Your task to perform on an android device: turn on bluetooth scan Image 0: 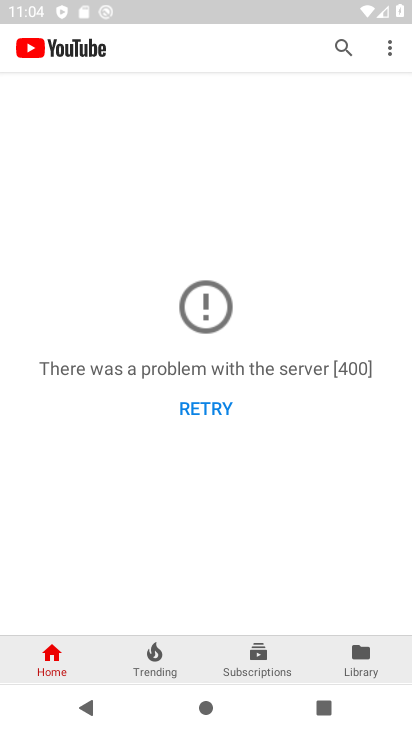
Step 0: press home button
Your task to perform on an android device: turn on bluetooth scan Image 1: 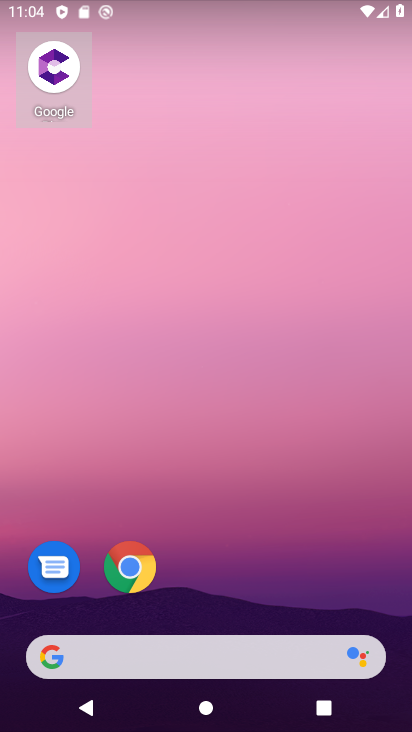
Step 1: drag from (323, 348) to (322, 236)
Your task to perform on an android device: turn on bluetooth scan Image 2: 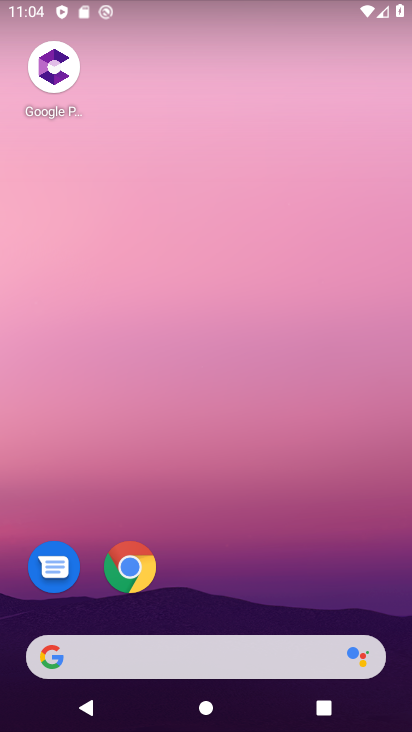
Step 2: drag from (332, 620) to (279, 57)
Your task to perform on an android device: turn on bluetooth scan Image 3: 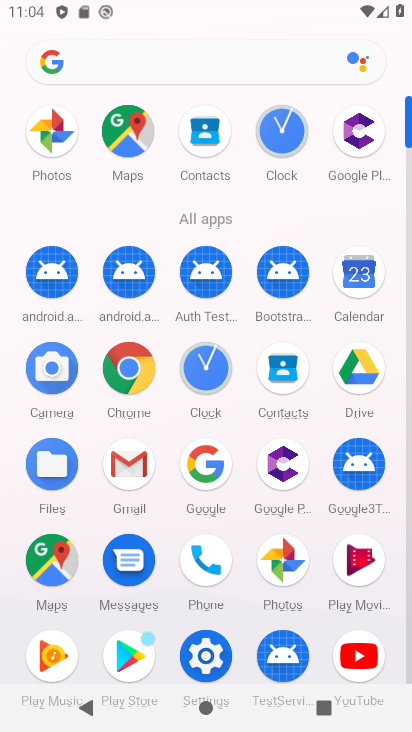
Step 3: click (197, 659)
Your task to perform on an android device: turn on bluetooth scan Image 4: 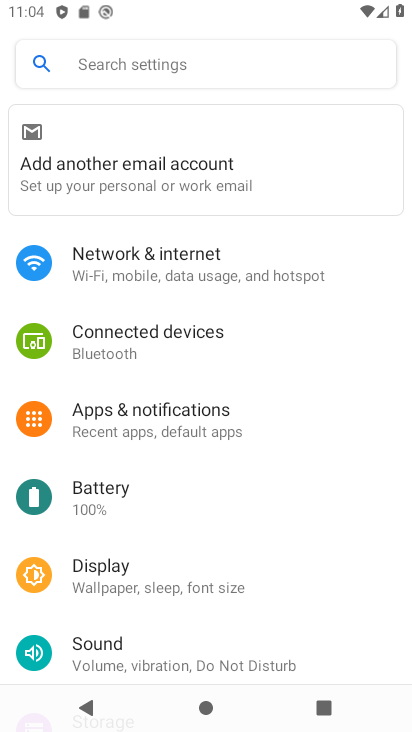
Step 4: drag from (279, 630) to (311, 306)
Your task to perform on an android device: turn on bluetooth scan Image 5: 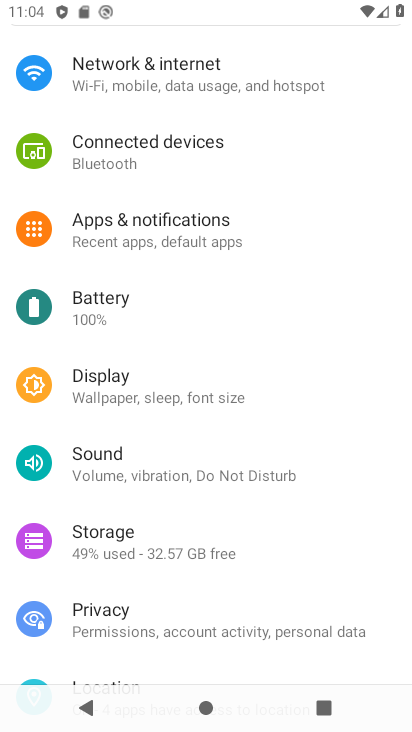
Step 5: drag from (282, 676) to (349, 264)
Your task to perform on an android device: turn on bluetooth scan Image 6: 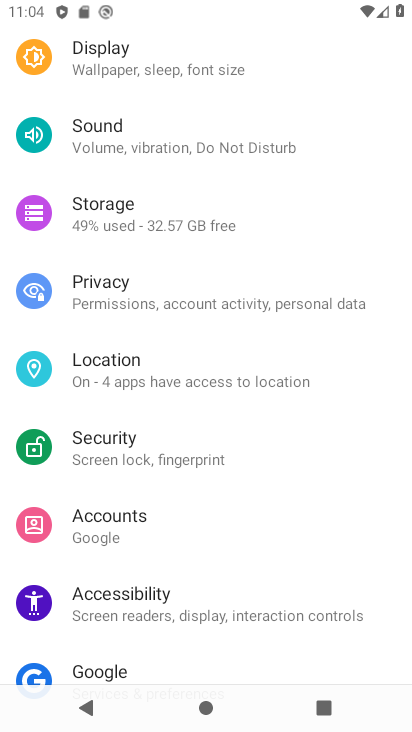
Step 6: drag from (276, 624) to (357, 90)
Your task to perform on an android device: turn on bluetooth scan Image 7: 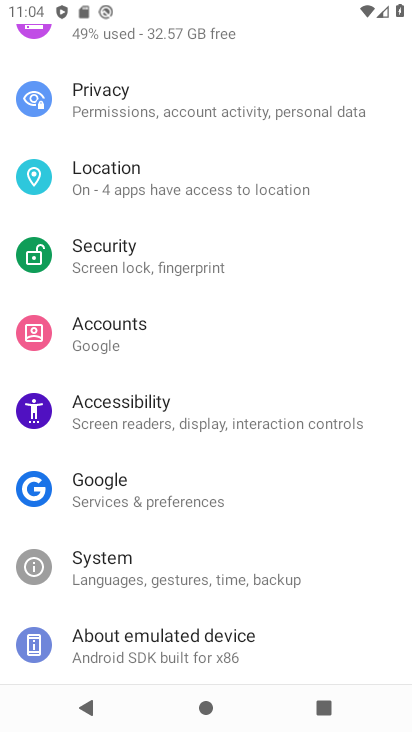
Step 7: click (251, 637)
Your task to perform on an android device: turn on bluetooth scan Image 8: 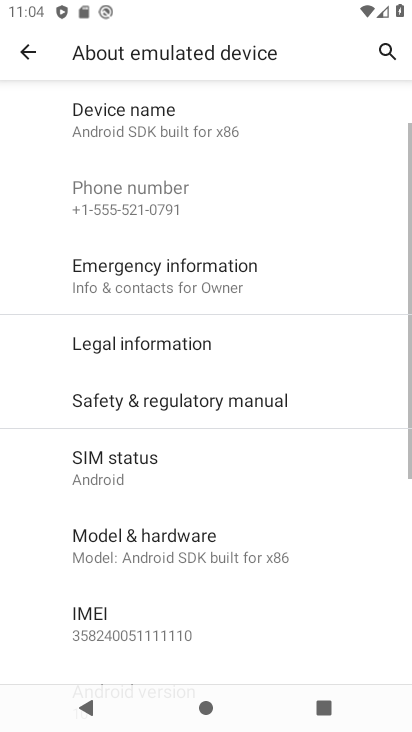
Step 8: click (11, 55)
Your task to perform on an android device: turn on bluetooth scan Image 9: 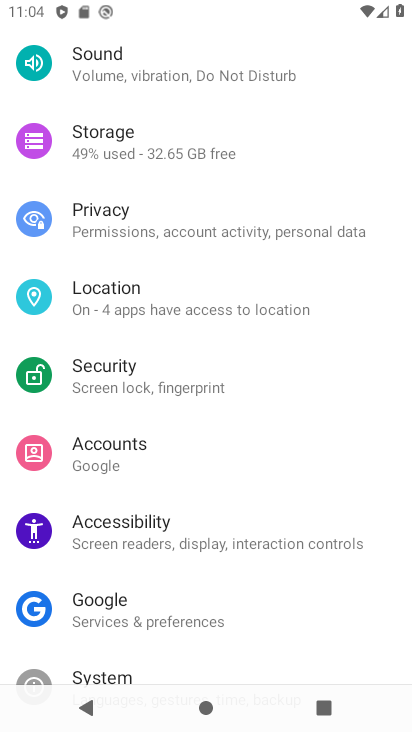
Step 9: drag from (202, 239) to (230, 538)
Your task to perform on an android device: turn on bluetooth scan Image 10: 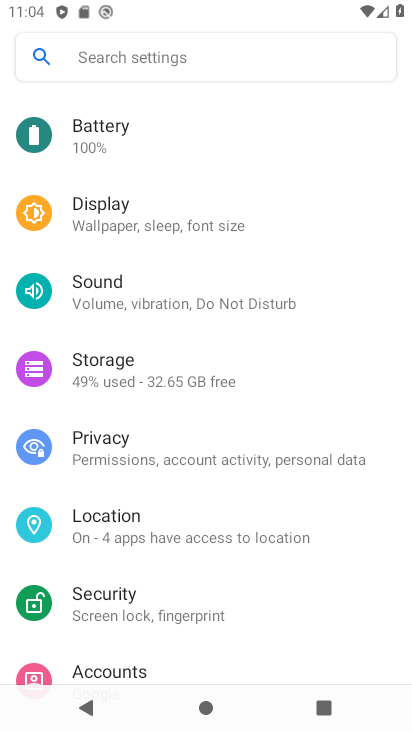
Step 10: click (168, 539)
Your task to perform on an android device: turn on bluetooth scan Image 11: 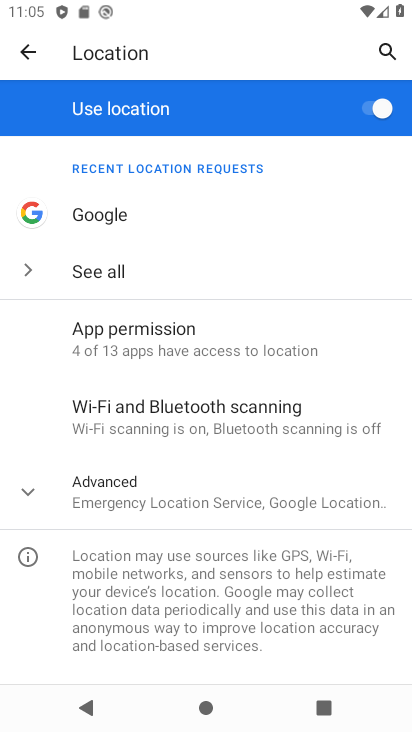
Step 11: click (151, 419)
Your task to perform on an android device: turn on bluetooth scan Image 12: 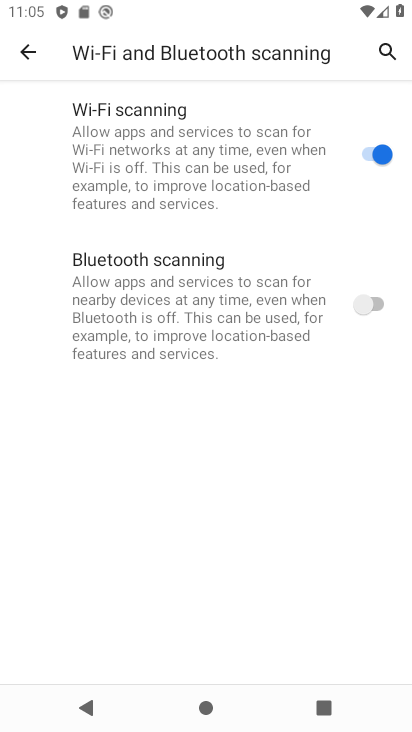
Step 12: click (370, 298)
Your task to perform on an android device: turn on bluetooth scan Image 13: 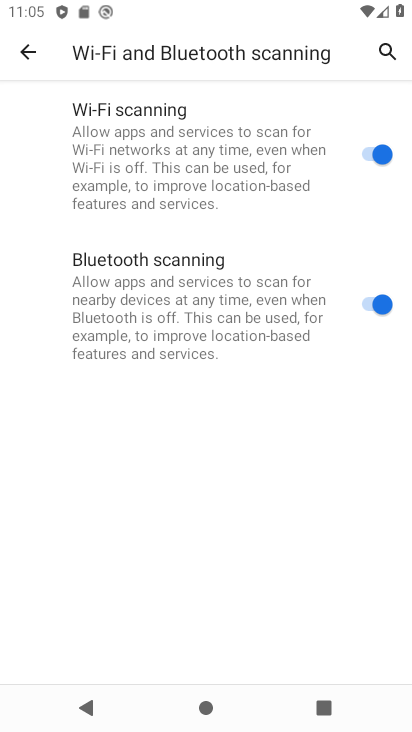
Step 13: task complete